Your task to perform on an android device: Go to sound settings Image 0: 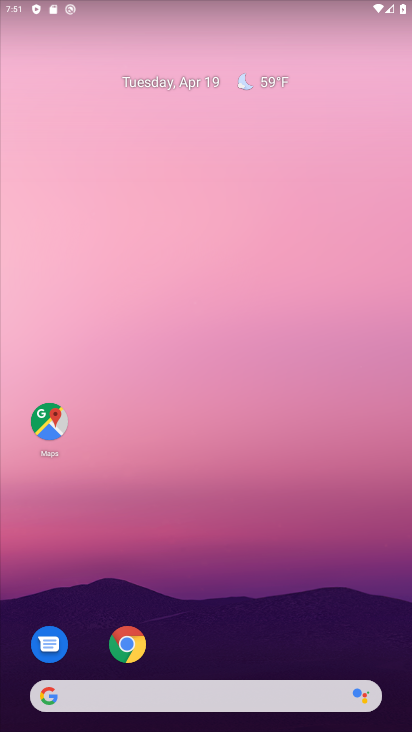
Step 0: drag from (281, 621) to (294, 192)
Your task to perform on an android device: Go to sound settings Image 1: 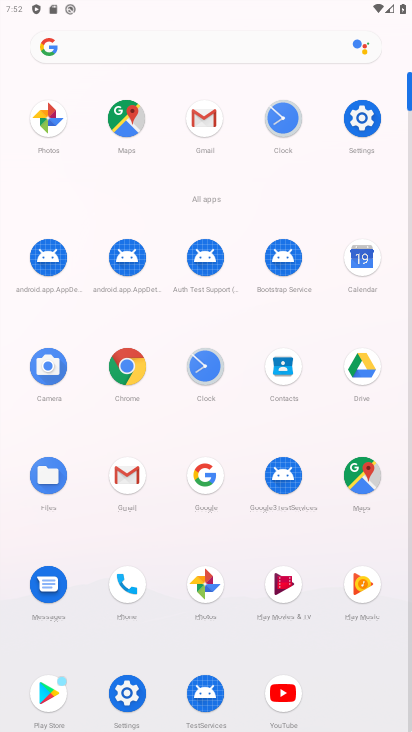
Step 1: click (351, 124)
Your task to perform on an android device: Go to sound settings Image 2: 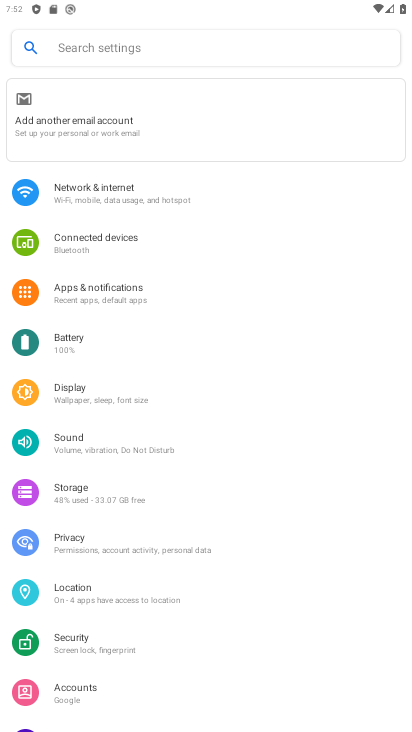
Step 2: click (129, 441)
Your task to perform on an android device: Go to sound settings Image 3: 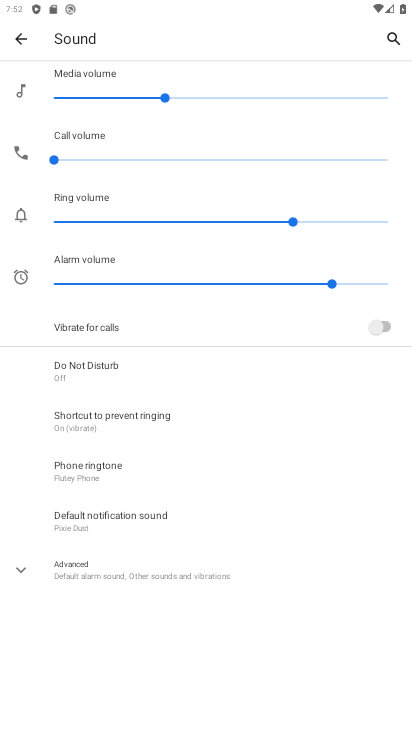
Step 3: task complete